Your task to perform on an android device: turn off sleep mode Image 0: 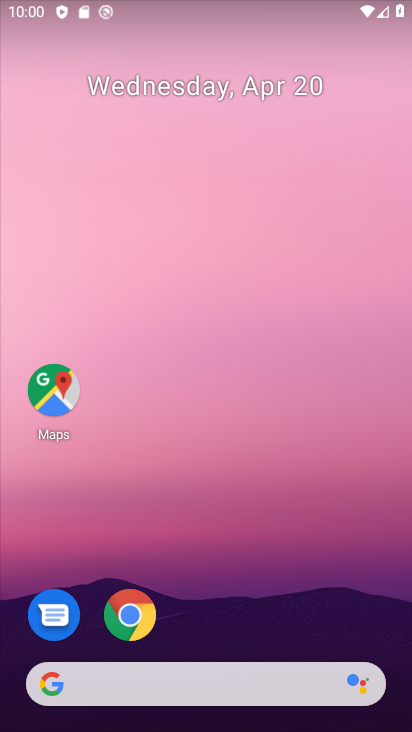
Step 0: drag from (239, 616) to (236, 203)
Your task to perform on an android device: turn off sleep mode Image 1: 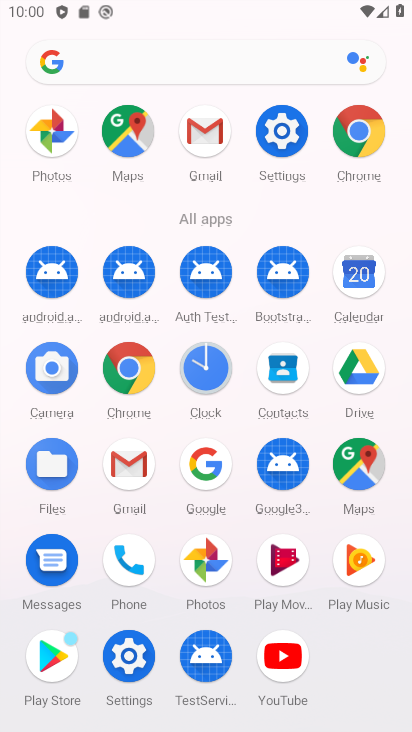
Step 1: click (283, 138)
Your task to perform on an android device: turn off sleep mode Image 2: 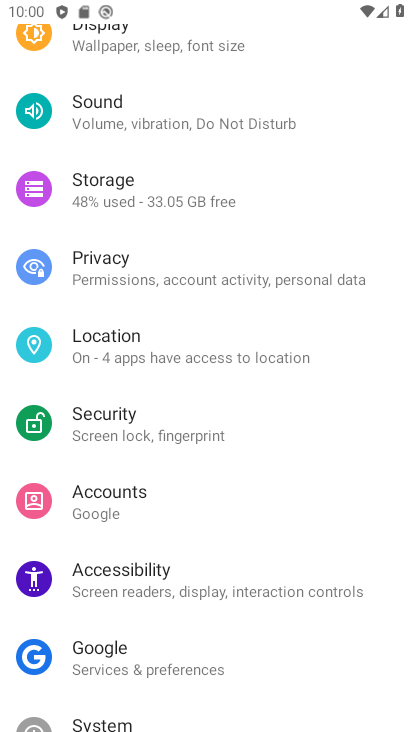
Step 2: click (190, 40)
Your task to perform on an android device: turn off sleep mode Image 3: 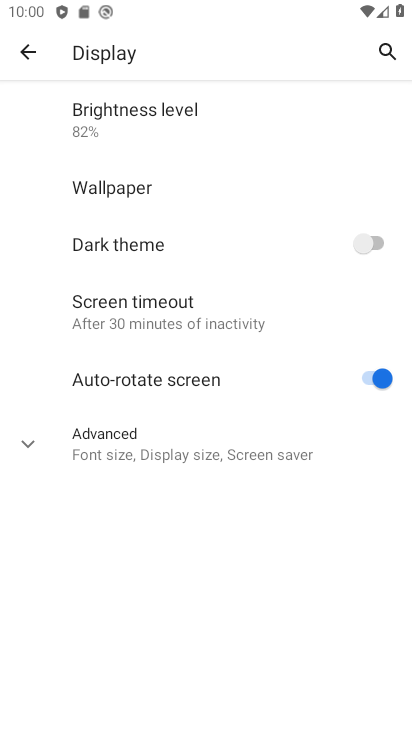
Step 3: click (168, 440)
Your task to perform on an android device: turn off sleep mode Image 4: 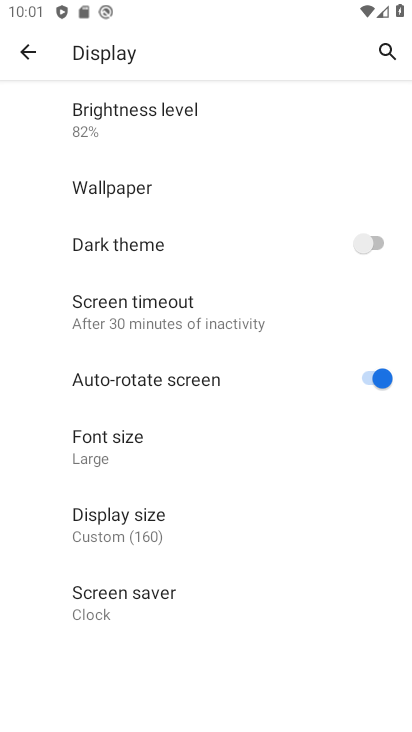
Step 4: task complete